Your task to perform on an android device: Open display settings Image 0: 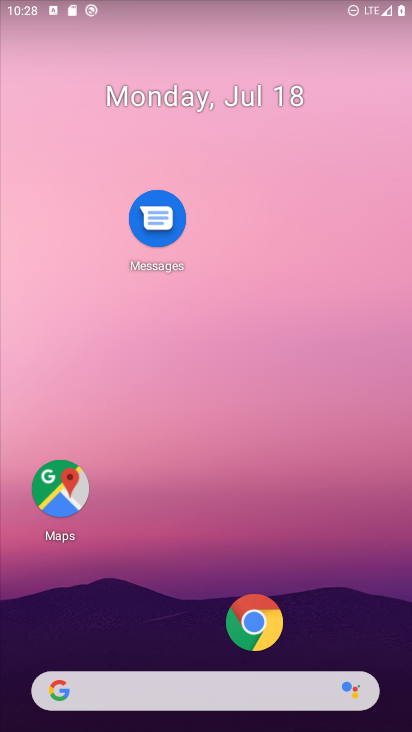
Step 0: drag from (170, 606) to (226, 94)
Your task to perform on an android device: Open display settings Image 1: 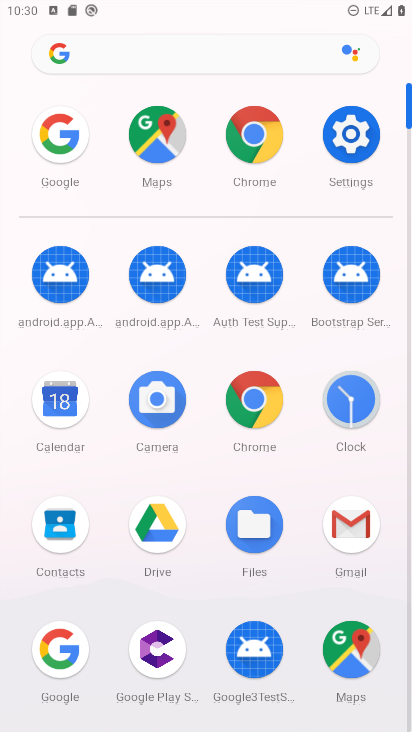
Step 1: drag from (162, 557) to (206, 243)
Your task to perform on an android device: Open display settings Image 2: 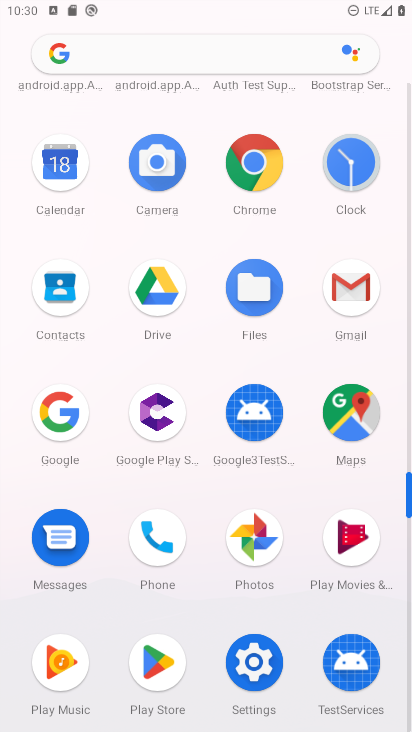
Step 2: click (260, 667)
Your task to perform on an android device: Open display settings Image 3: 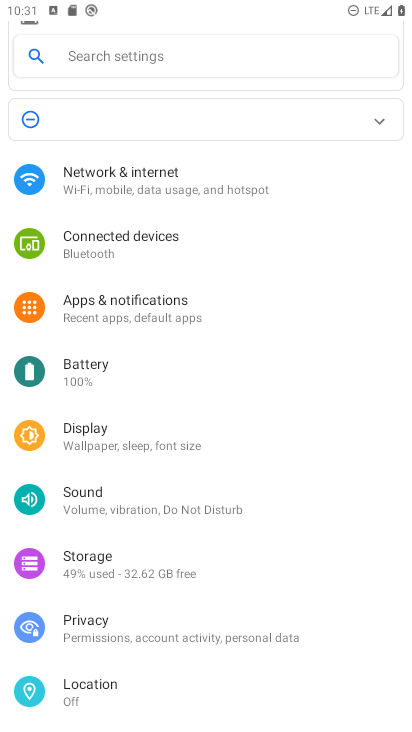
Step 3: click (96, 437)
Your task to perform on an android device: Open display settings Image 4: 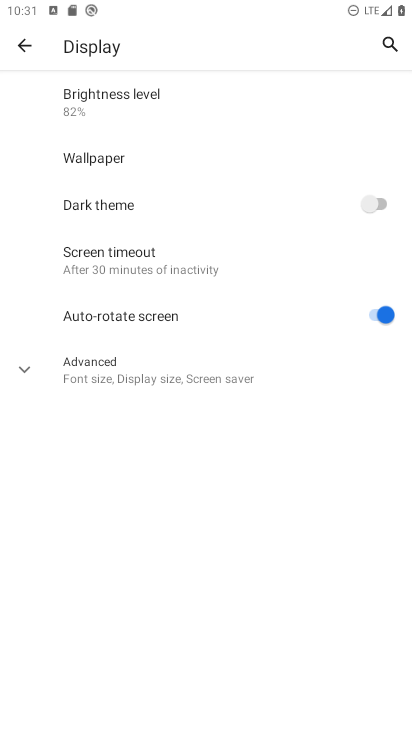
Step 4: task complete